Your task to perform on an android device: Show me the alarms in the clock app Image 0: 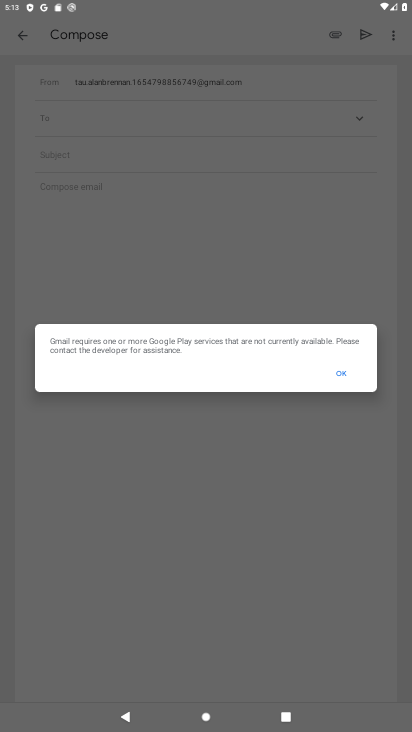
Step 0: press home button
Your task to perform on an android device: Show me the alarms in the clock app Image 1: 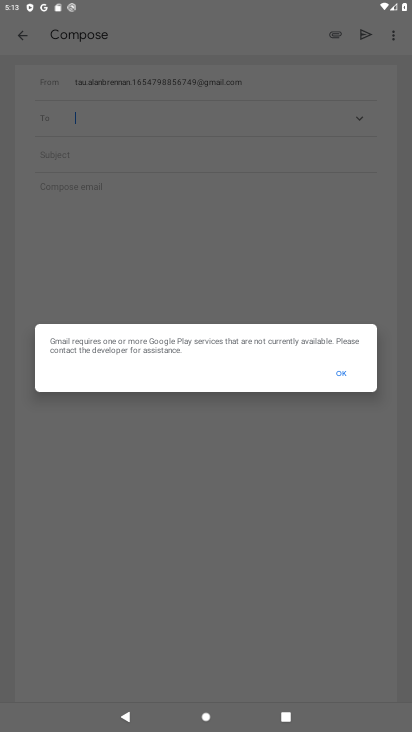
Step 1: press home button
Your task to perform on an android device: Show me the alarms in the clock app Image 2: 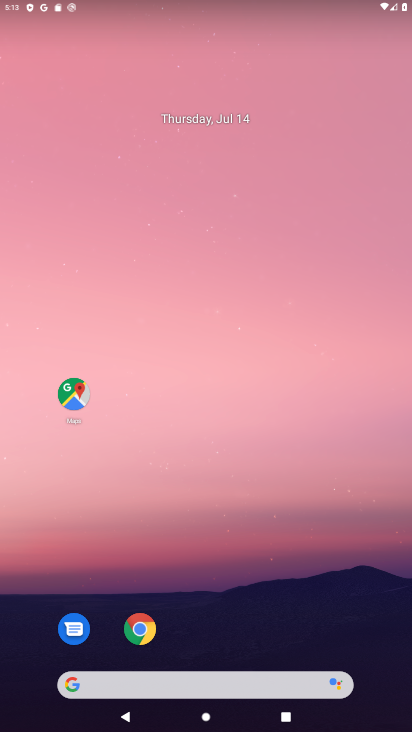
Step 2: drag from (327, 678) to (327, 27)
Your task to perform on an android device: Show me the alarms in the clock app Image 3: 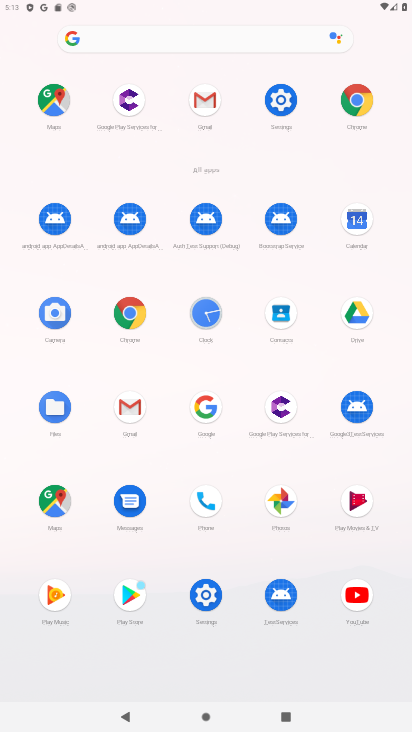
Step 3: click (212, 309)
Your task to perform on an android device: Show me the alarms in the clock app Image 4: 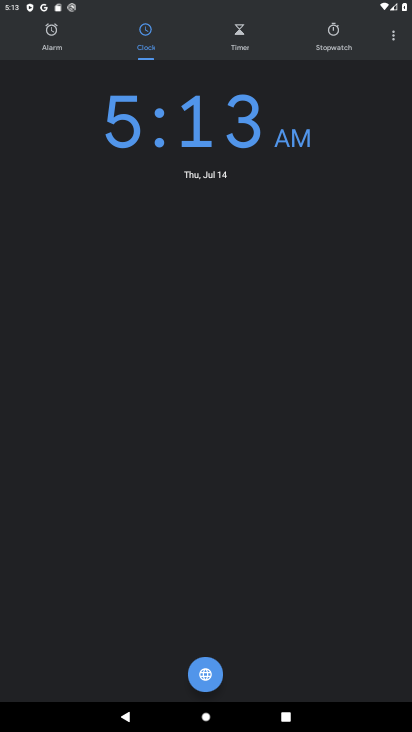
Step 4: click (46, 41)
Your task to perform on an android device: Show me the alarms in the clock app Image 5: 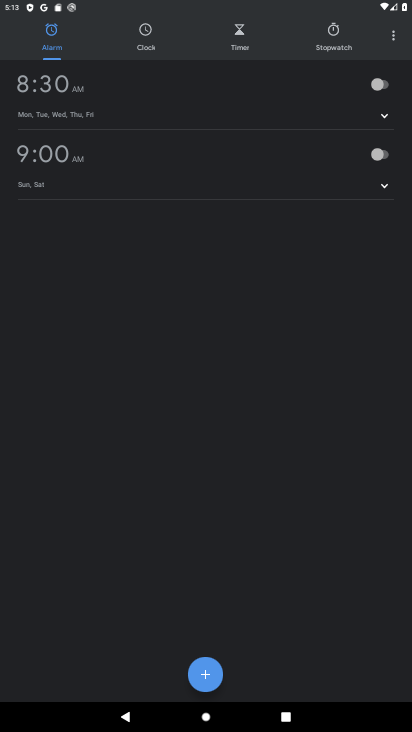
Step 5: task complete